Your task to perform on an android device: turn notification dots off Image 0: 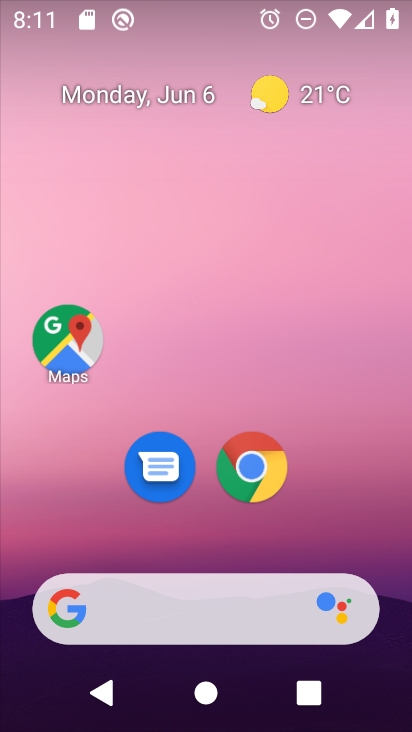
Step 0: drag from (372, 540) to (395, 173)
Your task to perform on an android device: turn notification dots off Image 1: 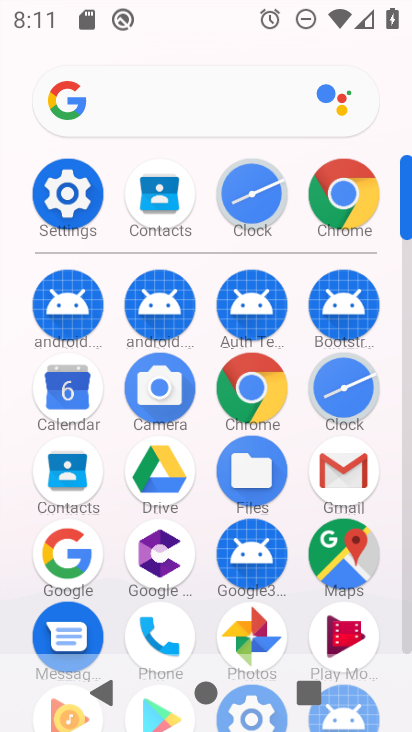
Step 1: click (75, 210)
Your task to perform on an android device: turn notification dots off Image 2: 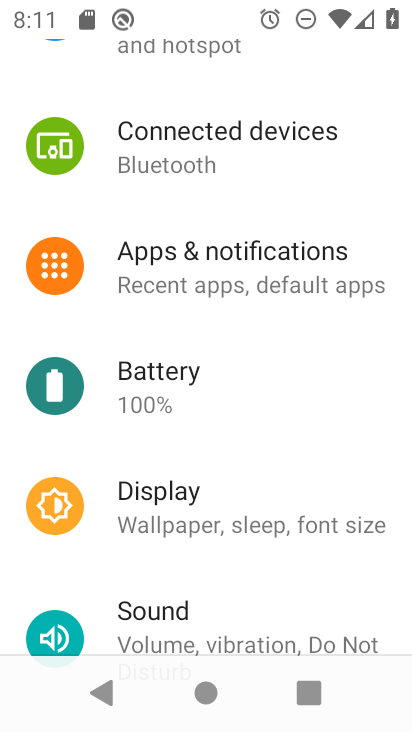
Step 2: click (288, 267)
Your task to perform on an android device: turn notification dots off Image 3: 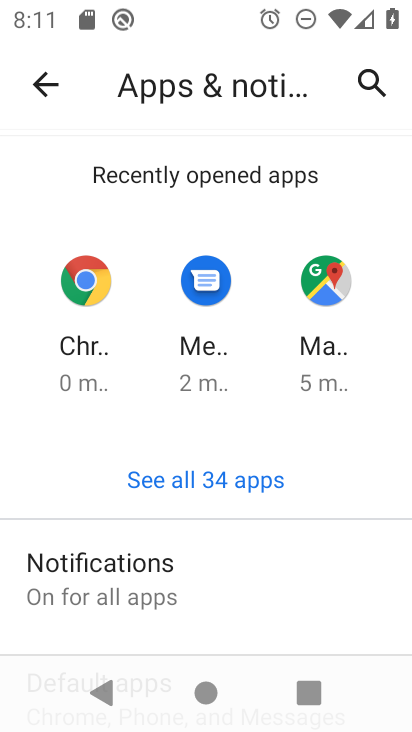
Step 3: drag from (318, 560) to (318, 447)
Your task to perform on an android device: turn notification dots off Image 4: 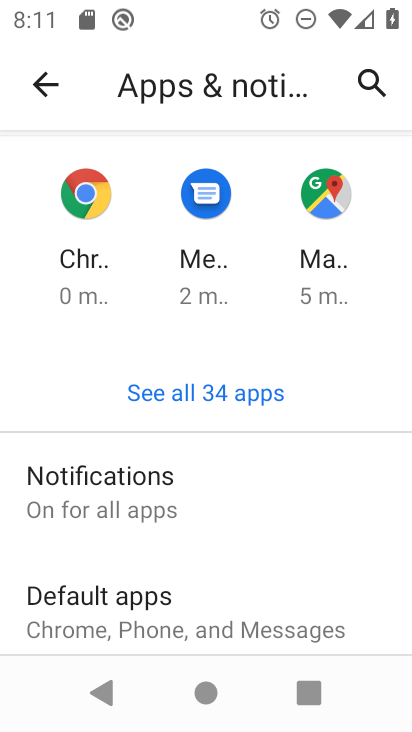
Step 4: drag from (323, 565) to (344, 418)
Your task to perform on an android device: turn notification dots off Image 5: 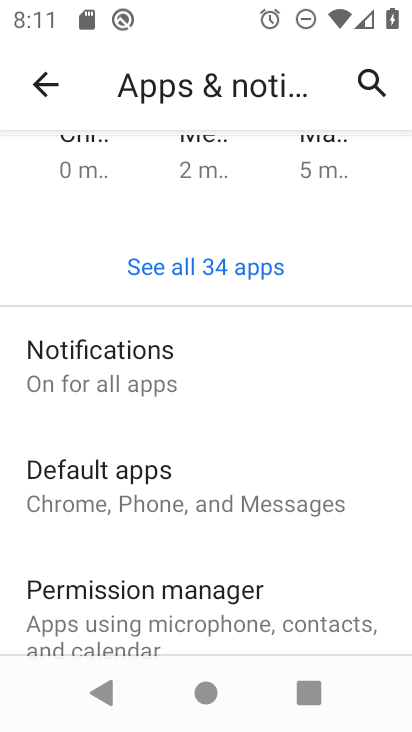
Step 5: drag from (338, 560) to (338, 423)
Your task to perform on an android device: turn notification dots off Image 6: 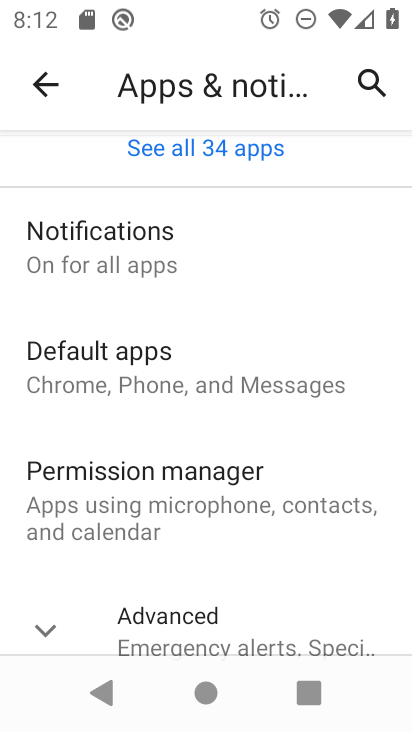
Step 6: click (194, 245)
Your task to perform on an android device: turn notification dots off Image 7: 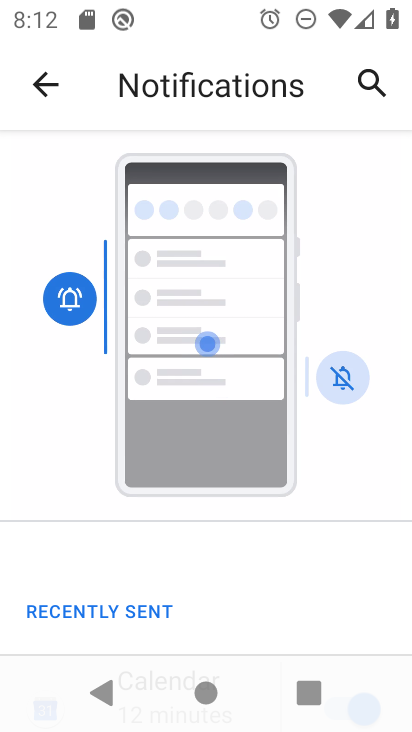
Step 7: drag from (302, 499) to (319, 357)
Your task to perform on an android device: turn notification dots off Image 8: 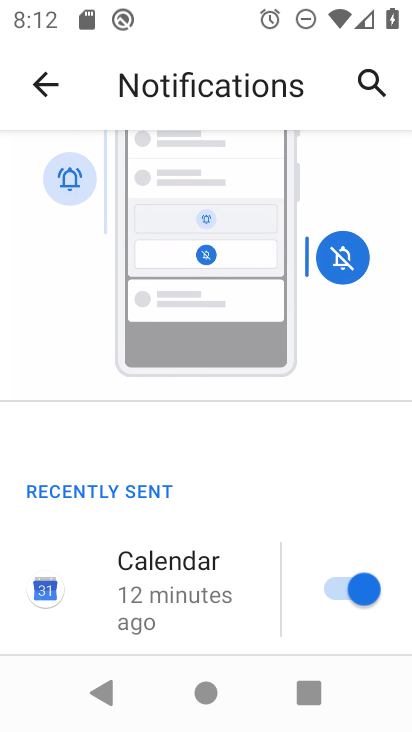
Step 8: drag from (248, 571) to (258, 403)
Your task to perform on an android device: turn notification dots off Image 9: 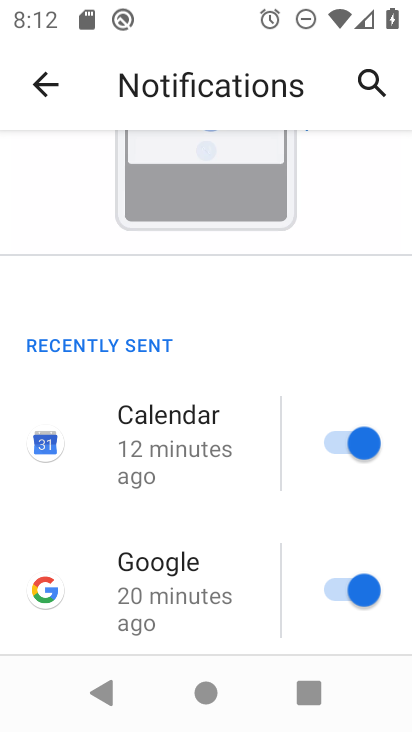
Step 9: drag from (235, 513) to (256, 364)
Your task to perform on an android device: turn notification dots off Image 10: 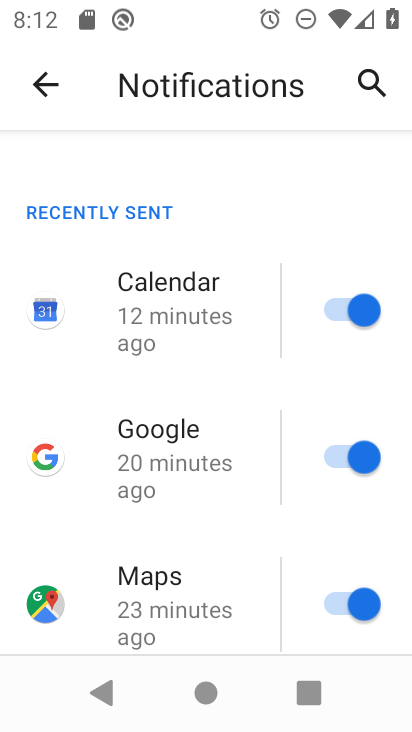
Step 10: drag from (246, 557) to (249, 403)
Your task to perform on an android device: turn notification dots off Image 11: 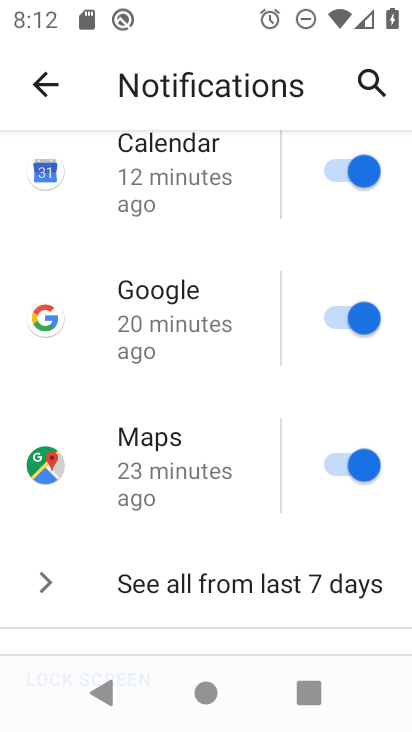
Step 11: drag from (231, 597) to (220, 403)
Your task to perform on an android device: turn notification dots off Image 12: 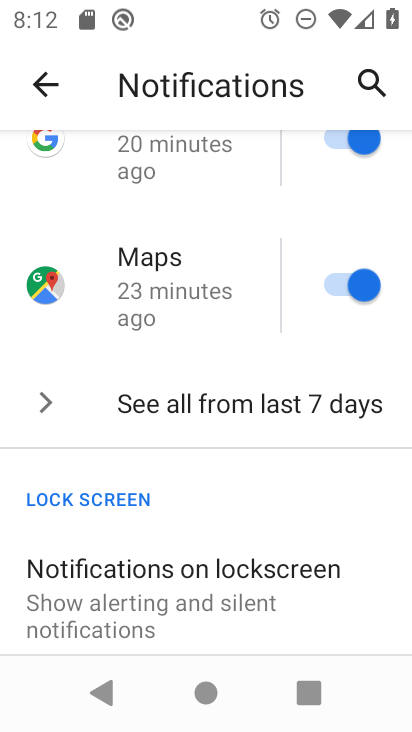
Step 12: drag from (209, 616) to (223, 376)
Your task to perform on an android device: turn notification dots off Image 13: 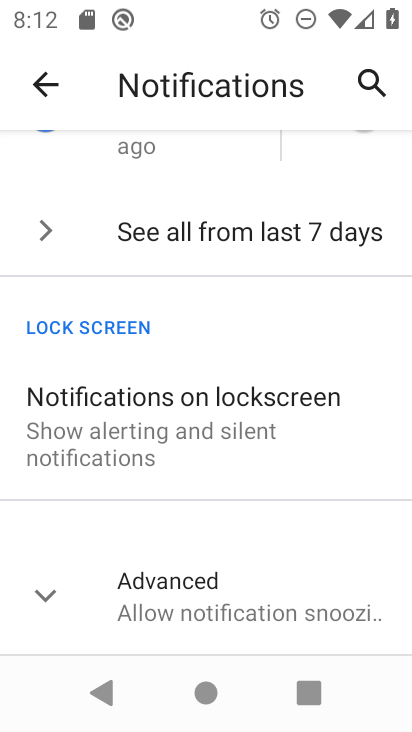
Step 13: click (255, 611)
Your task to perform on an android device: turn notification dots off Image 14: 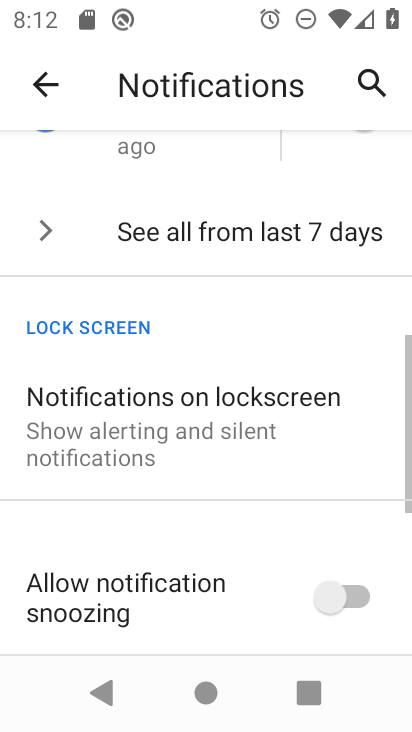
Step 14: task complete